Your task to perform on an android device: Find coffee shops on Maps Image 0: 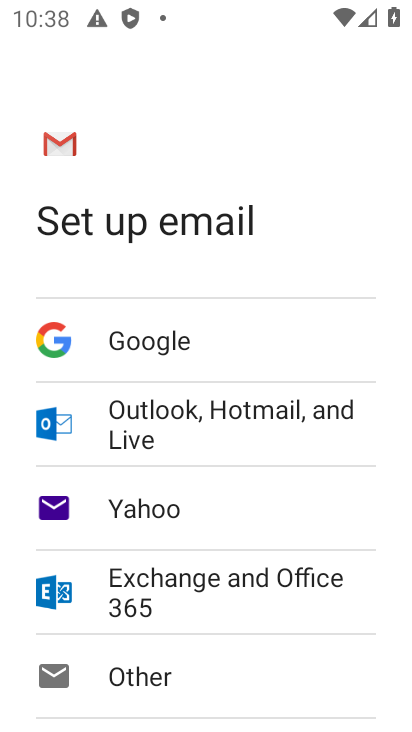
Step 0: press home button
Your task to perform on an android device: Find coffee shops on Maps Image 1: 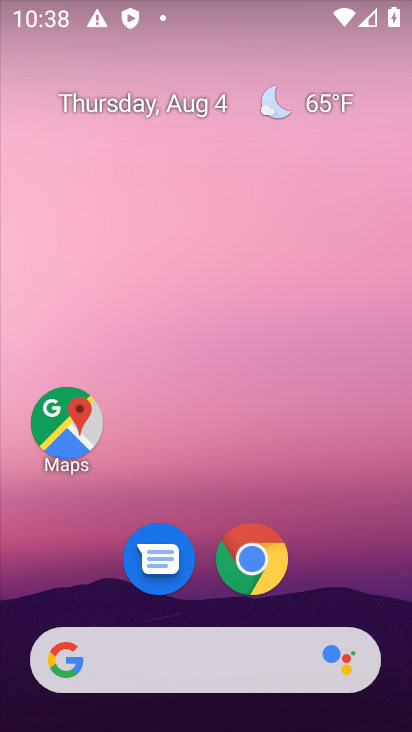
Step 1: click (58, 415)
Your task to perform on an android device: Find coffee shops on Maps Image 2: 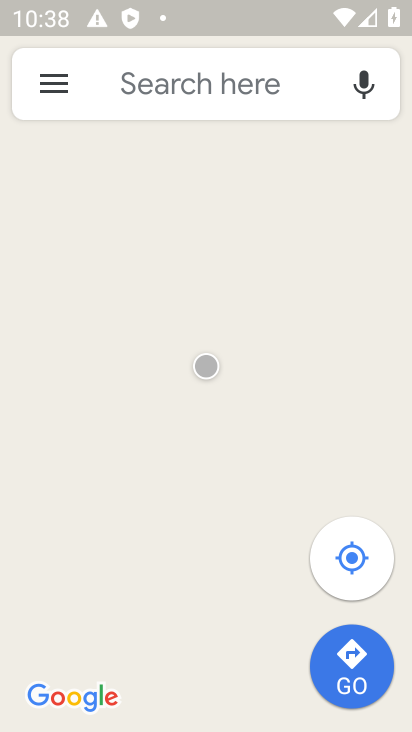
Step 2: click (234, 83)
Your task to perform on an android device: Find coffee shops on Maps Image 3: 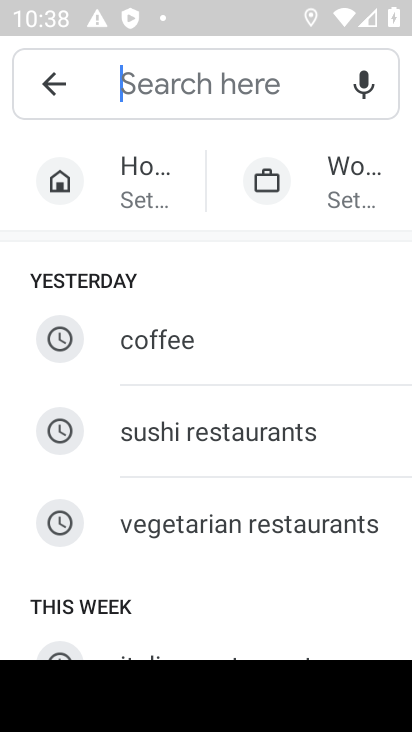
Step 3: type "coffee shops"
Your task to perform on an android device: Find coffee shops on Maps Image 4: 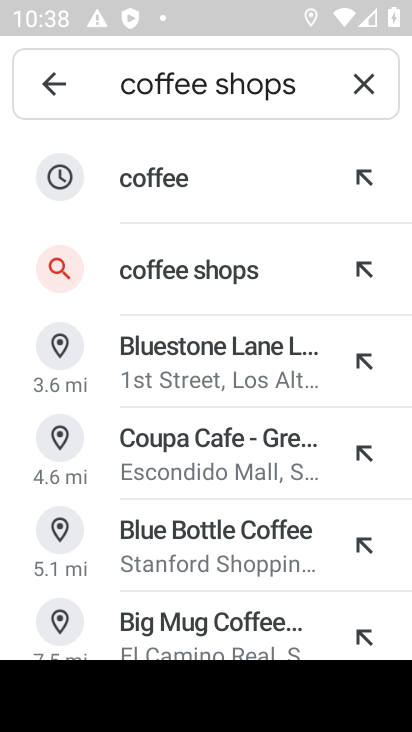
Step 4: click (183, 273)
Your task to perform on an android device: Find coffee shops on Maps Image 5: 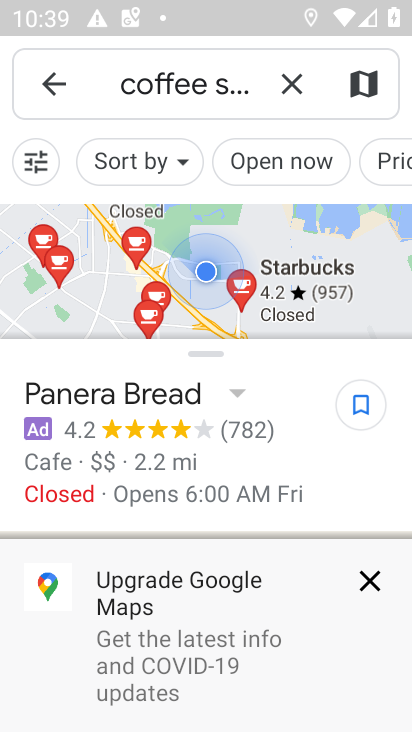
Step 5: task complete